Your task to perform on an android device: Open ESPN.com Image 0: 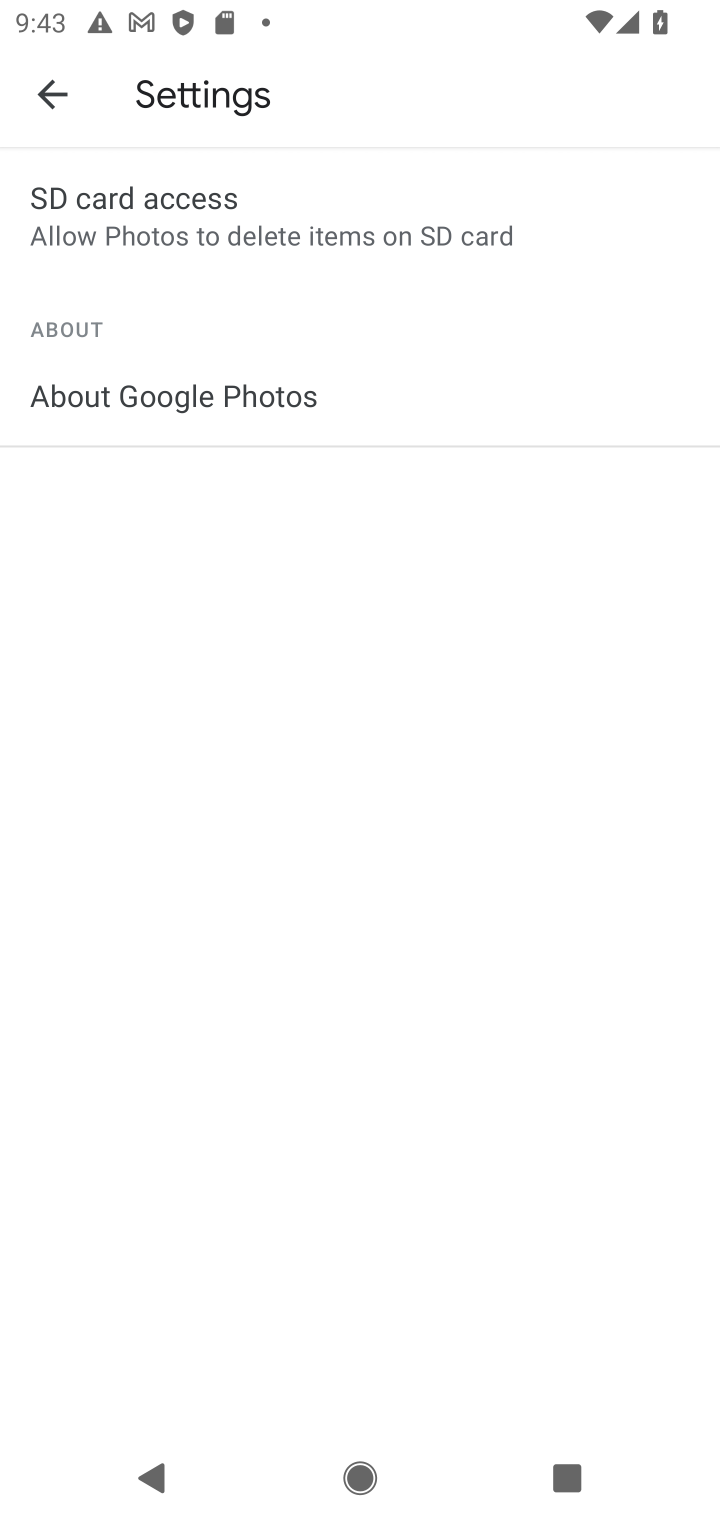
Step 0: press home button
Your task to perform on an android device: Open ESPN.com Image 1: 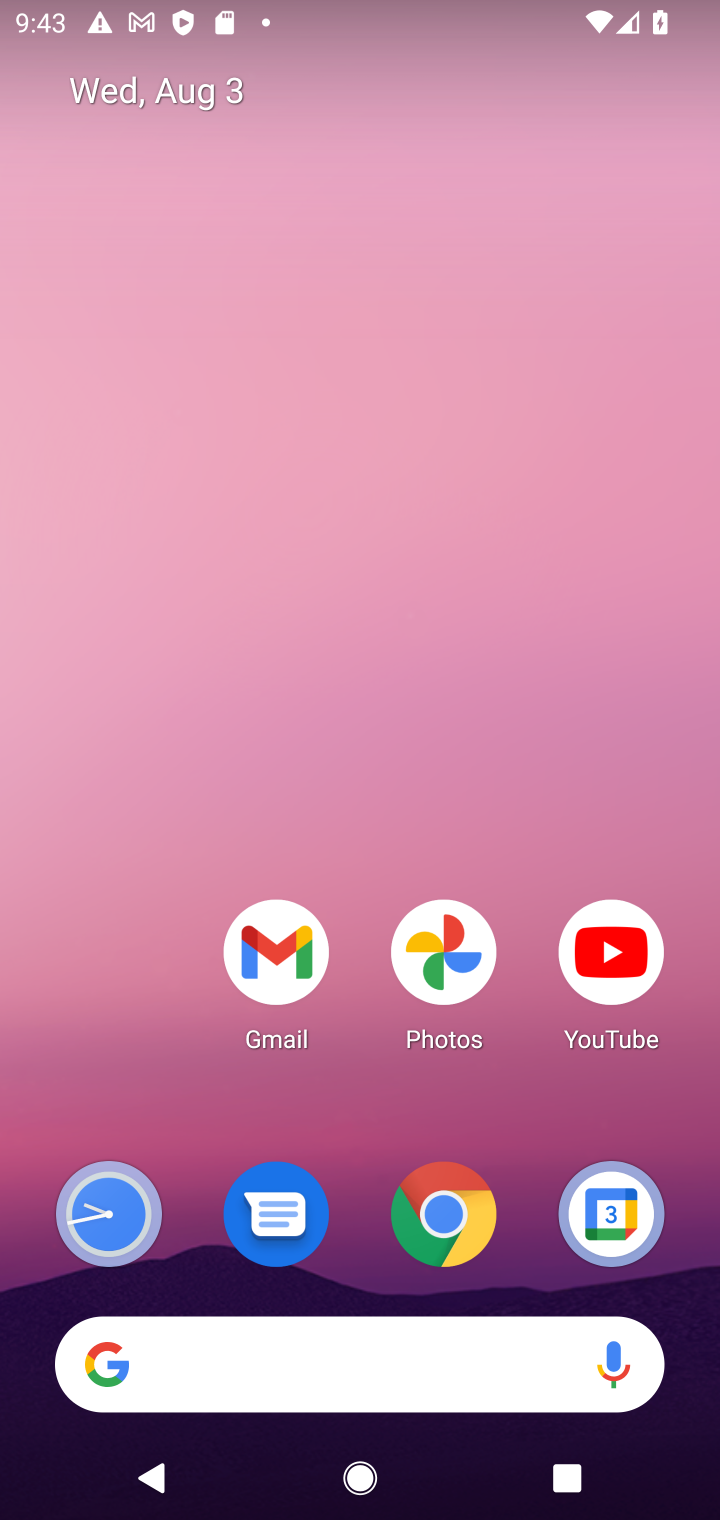
Step 1: click (450, 1204)
Your task to perform on an android device: Open ESPN.com Image 2: 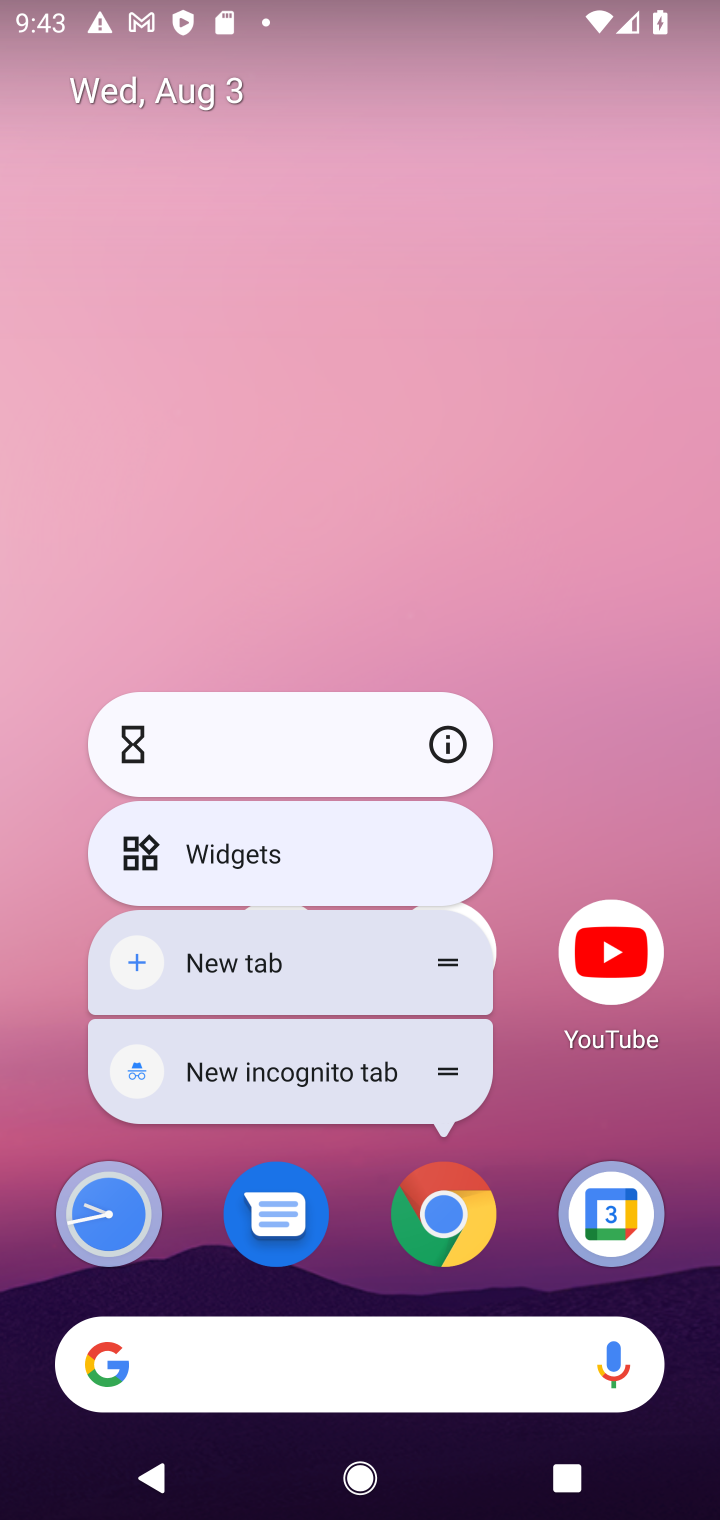
Step 2: click (462, 1227)
Your task to perform on an android device: Open ESPN.com Image 3: 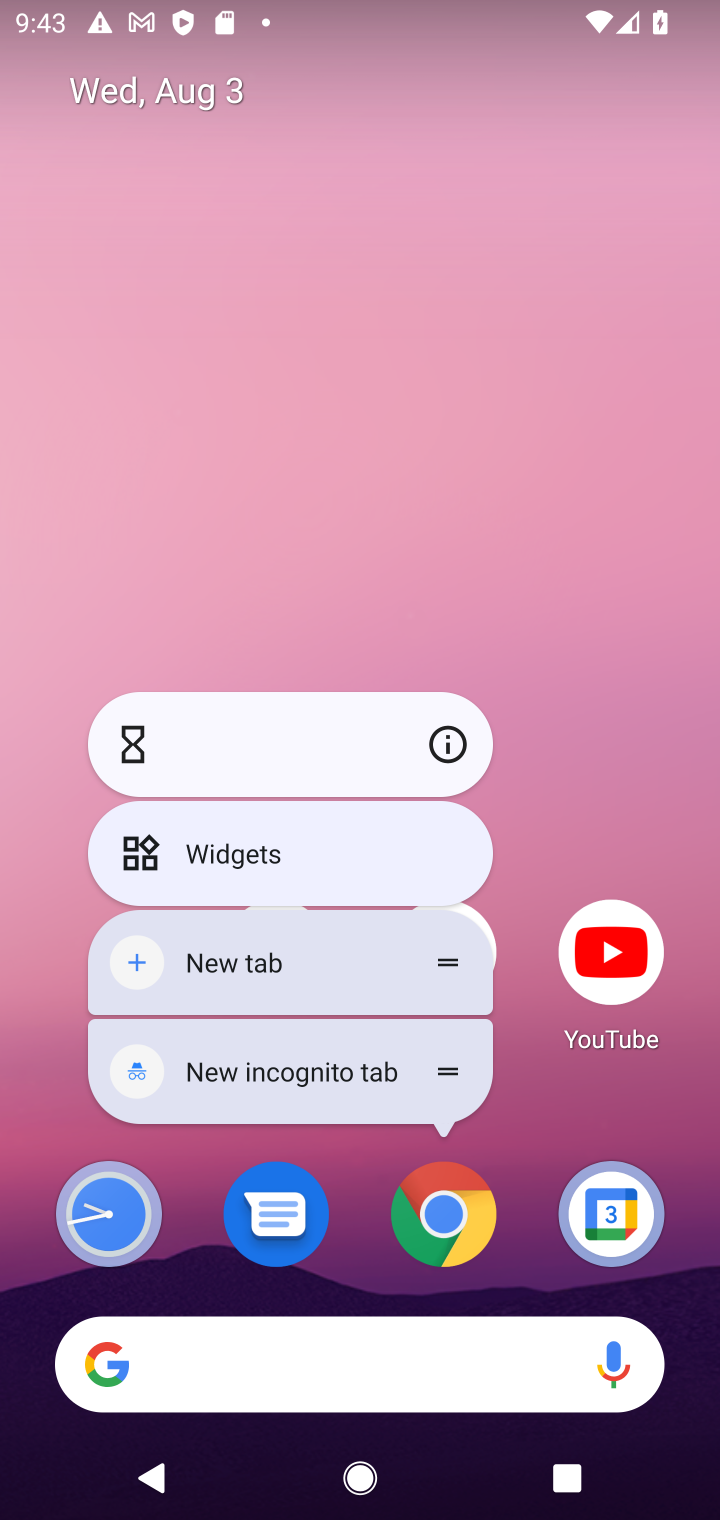
Step 3: click (425, 1226)
Your task to perform on an android device: Open ESPN.com Image 4: 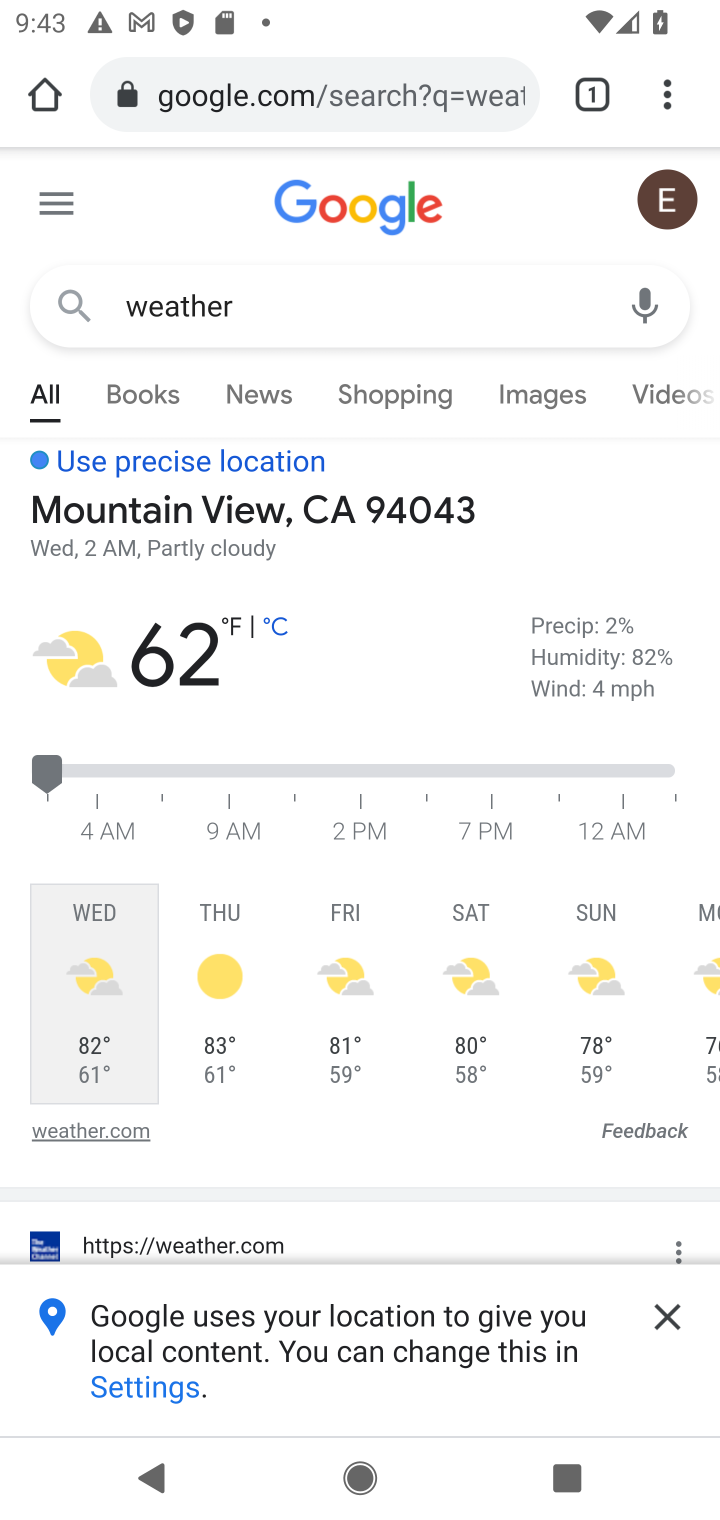
Step 4: click (358, 92)
Your task to perform on an android device: Open ESPN.com Image 5: 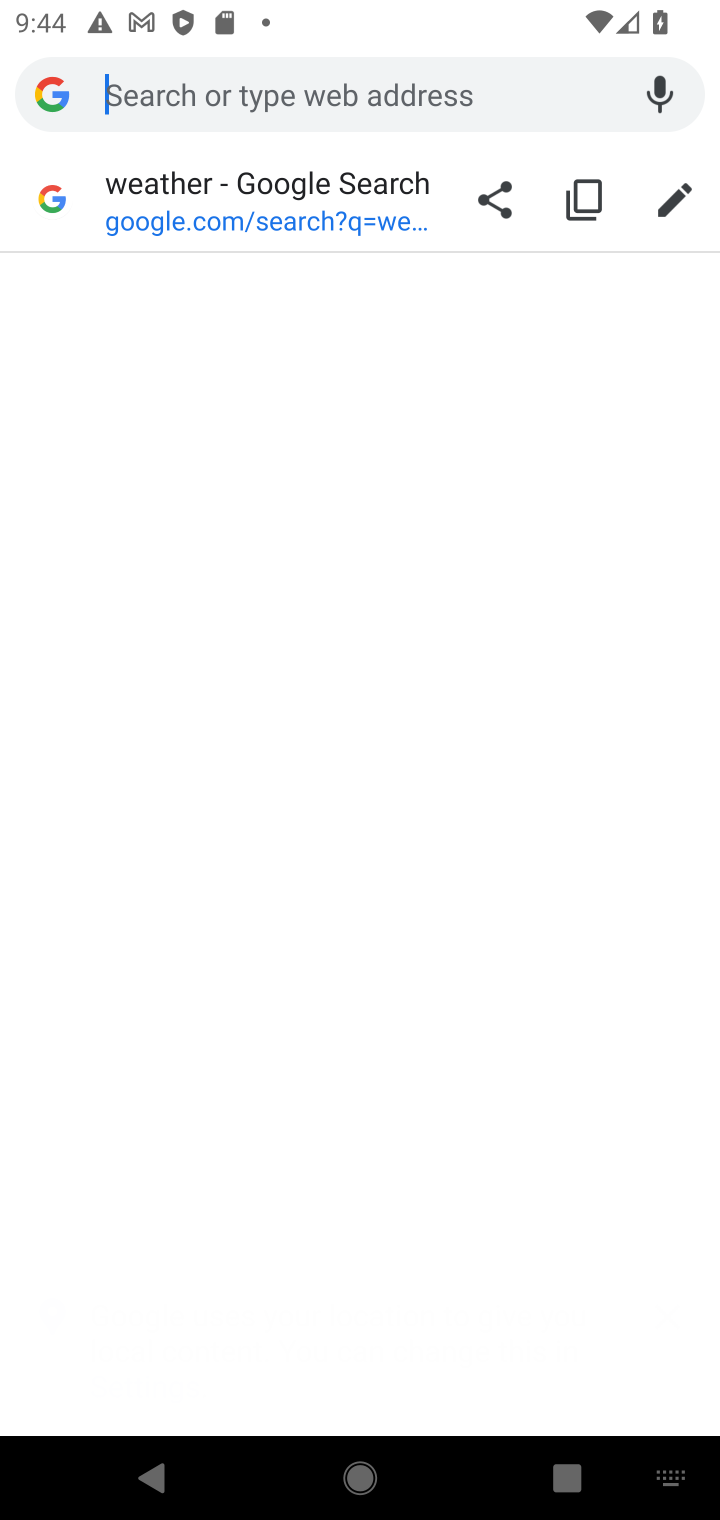
Step 5: type "ESPN.com"
Your task to perform on an android device: Open ESPN.com Image 6: 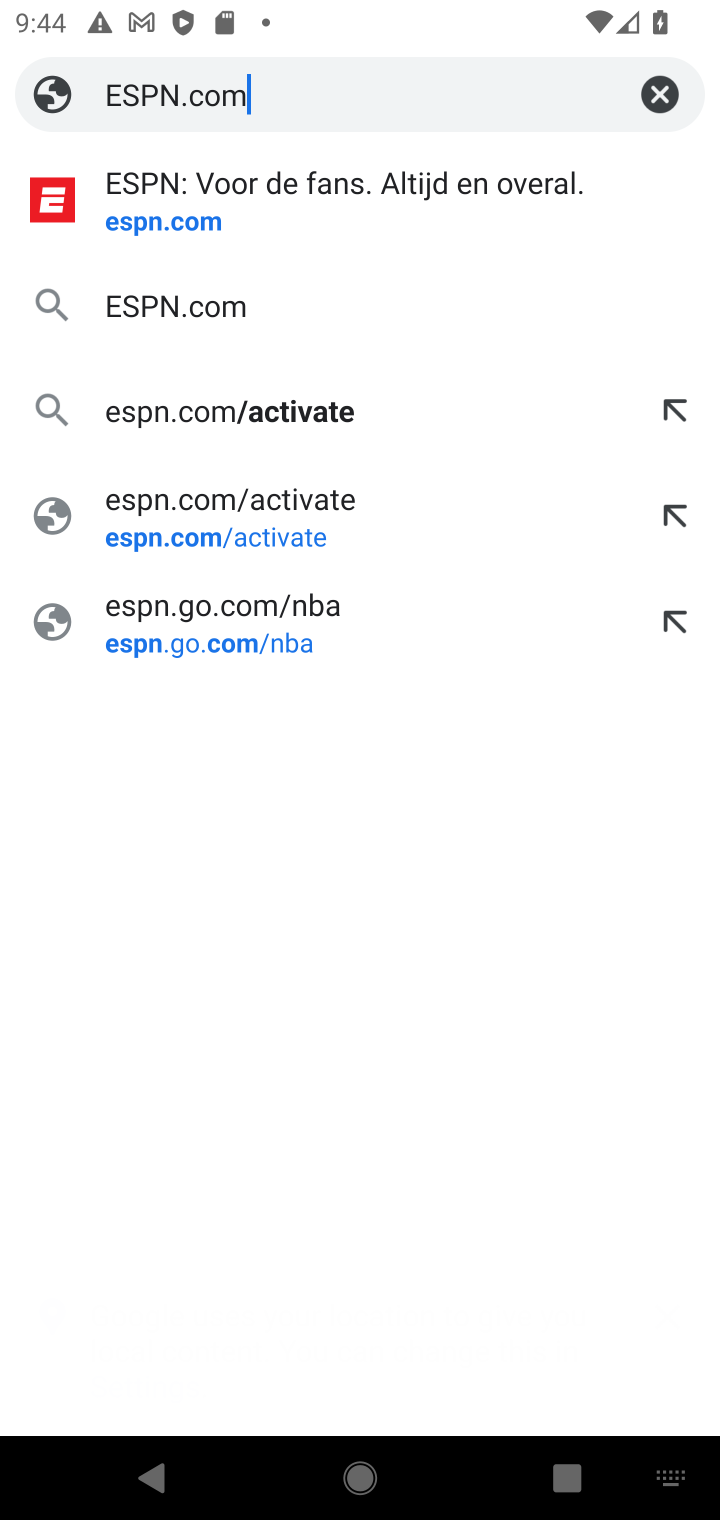
Step 6: click (123, 214)
Your task to perform on an android device: Open ESPN.com Image 7: 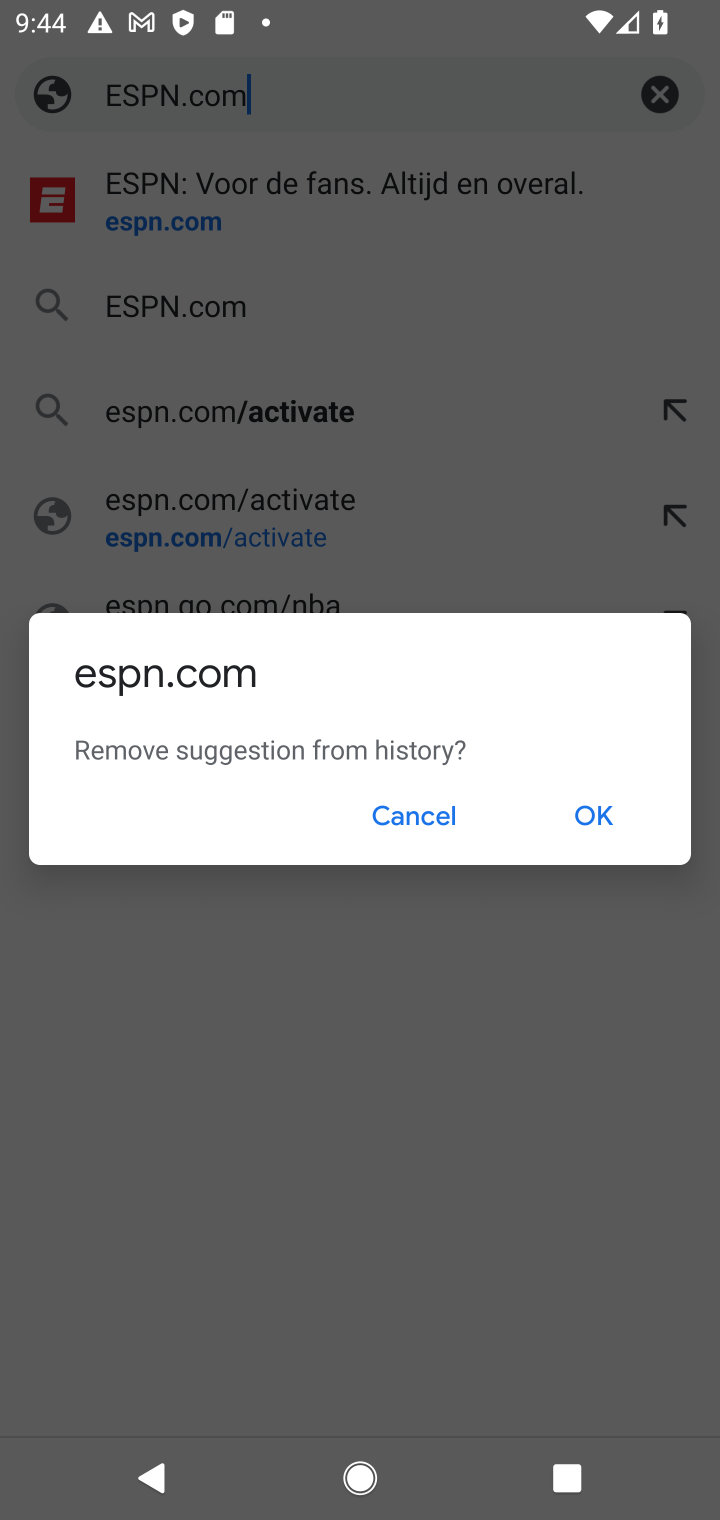
Step 7: click (420, 807)
Your task to perform on an android device: Open ESPN.com Image 8: 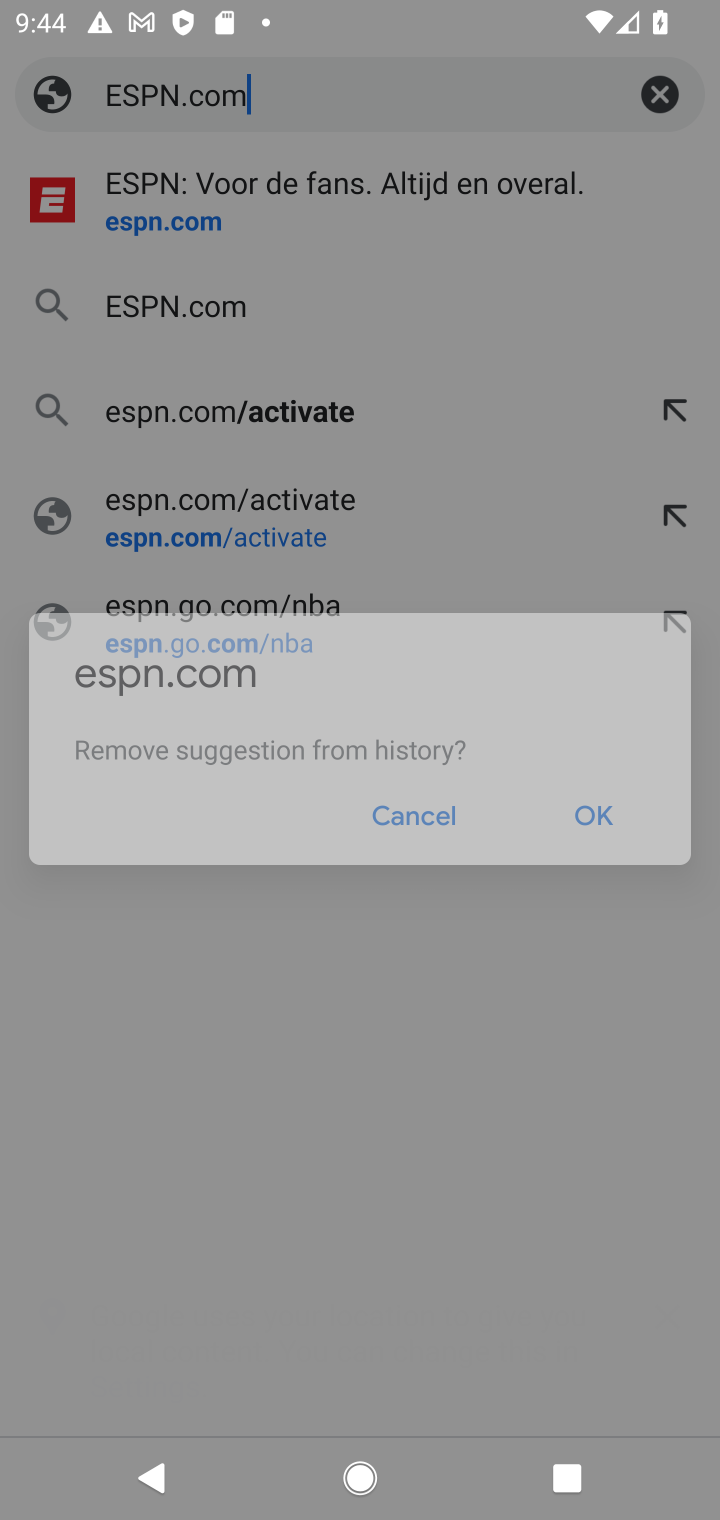
Step 8: click (263, 178)
Your task to perform on an android device: Open ESPN.com Image 9: 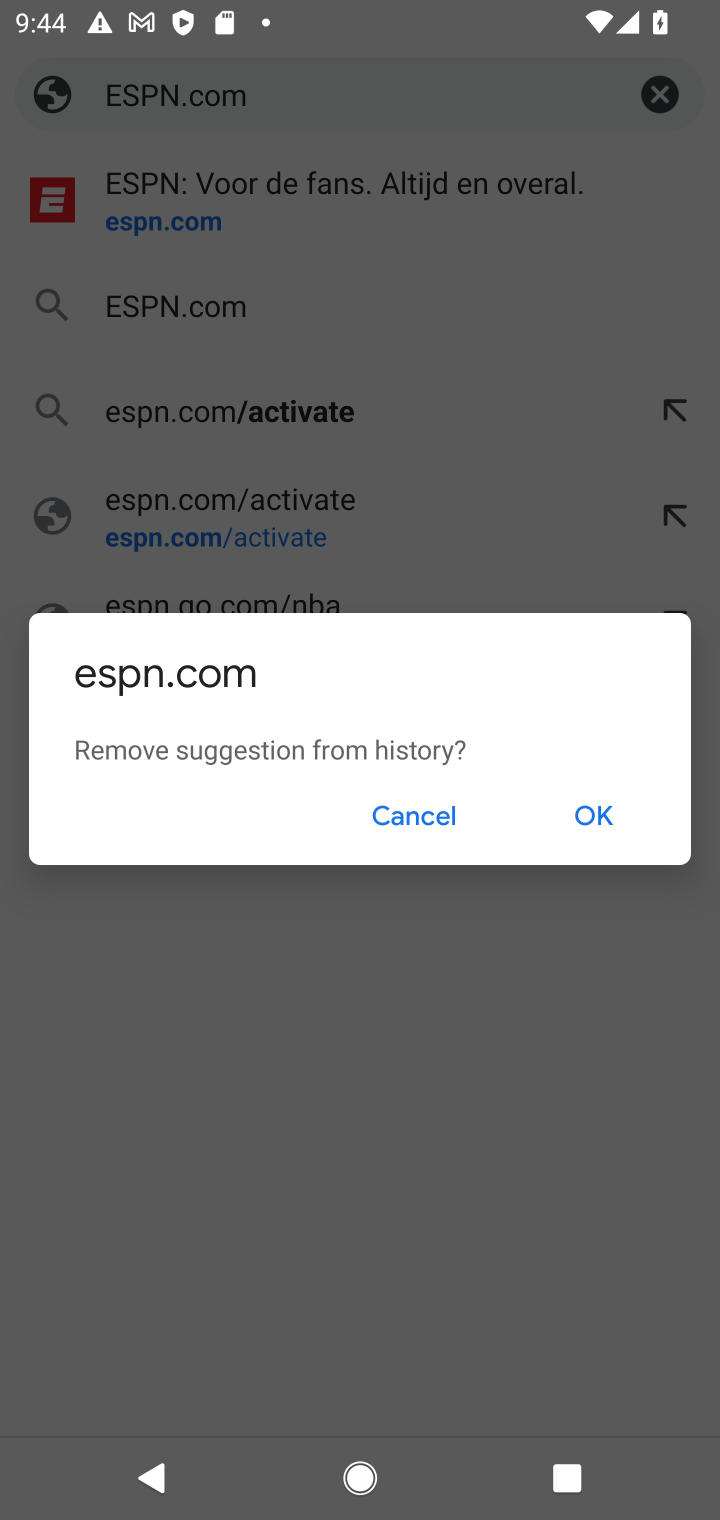
Step 9: click (402, 827)
Your task to perform on an android device: Open ESPN.com Image 10: 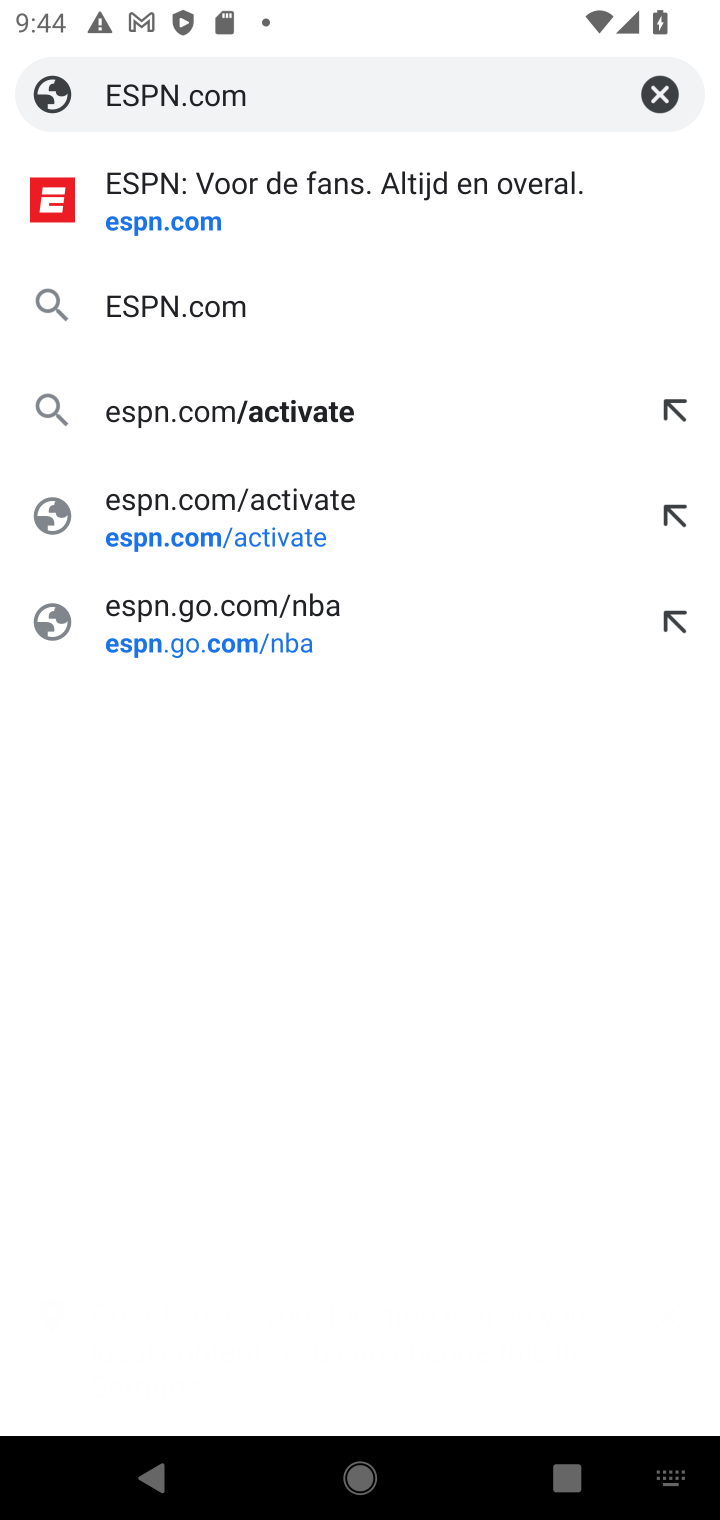
Step 10: click (387, 192)
Your task to perform on an android device: Open ESPN.com Image 11: 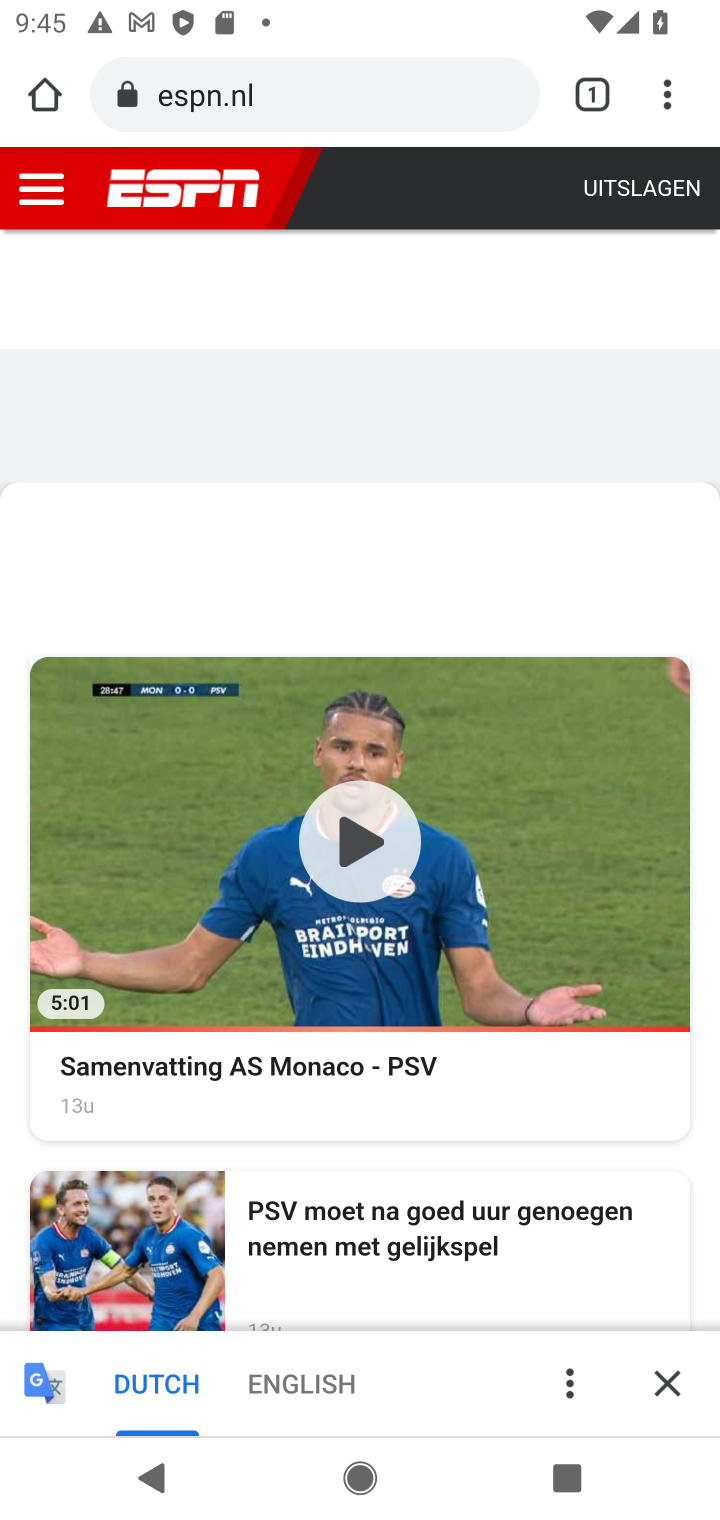
Step 11: task complete